Your task to perform on an android device: Open location settings Image 0: 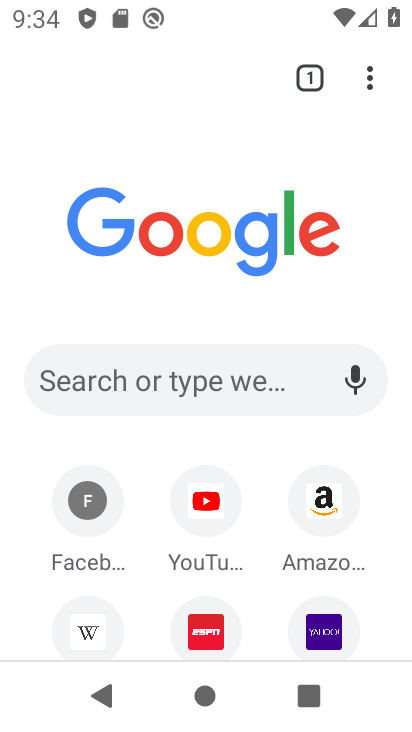
Step 0: press home button
Your task to perform on an android device: Open location settings Image 1: 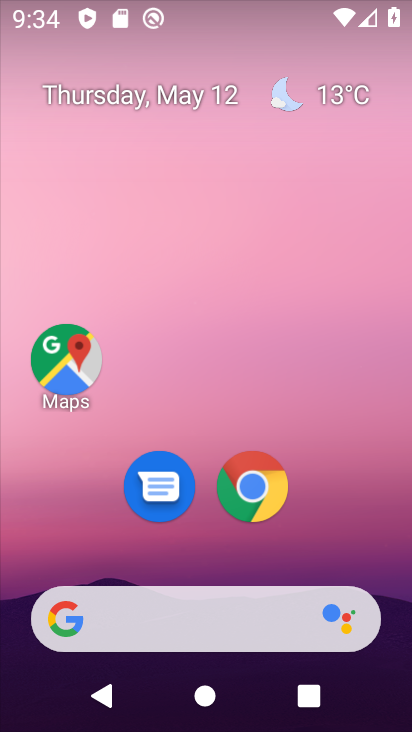
Step 1: drag from (362, 507) to (300, 132)
Your task to perform on an android device: Open location settings Image 2: 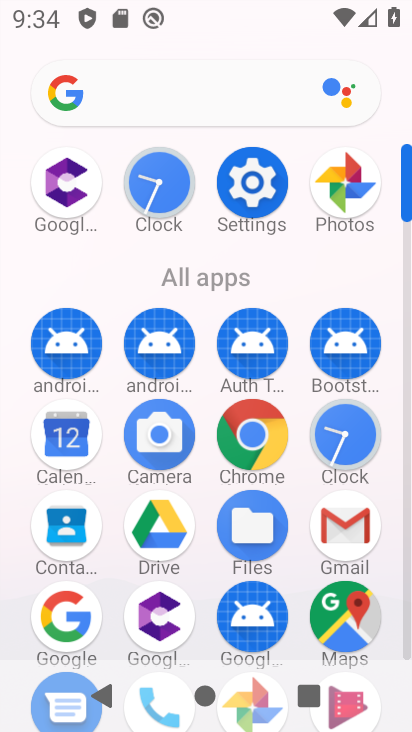
Step 2: click (259, 202)
Your task to perform on an android device: Open location settings Image 3: 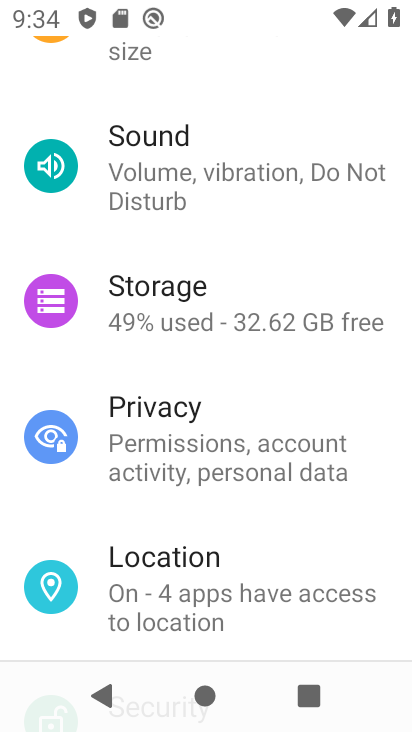
Step 3: drag from (337, 539) to (287, 319)
Your task to perform on an android device: Open location settings Image 4: 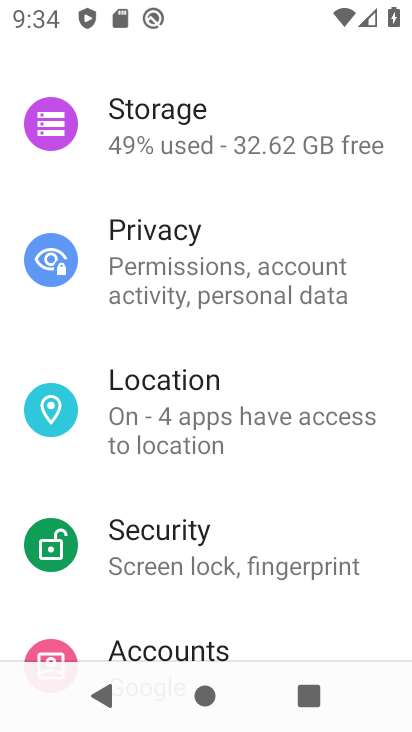
Step 4: click (159, 430)
Your task to perform on an android device: Open location settings Image 5: 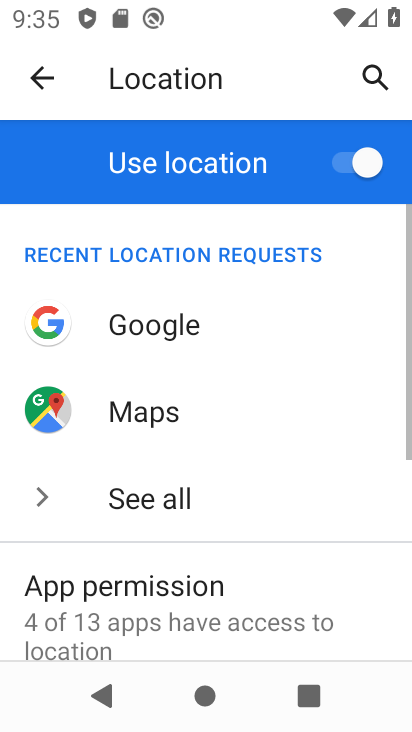
Step 5: task complete